Your task to perform on an android device: uninstall "DoorDash - Dasher" Image 0: 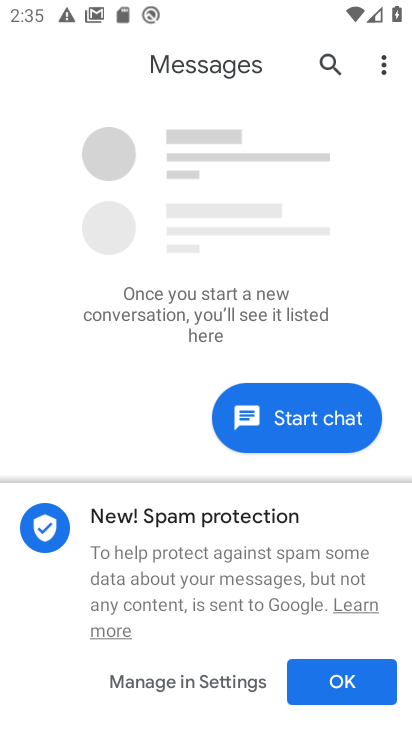
Step 0: press back button
Your task to perform on an android device: uninstall "DoorDash - Dasher" Image 1: 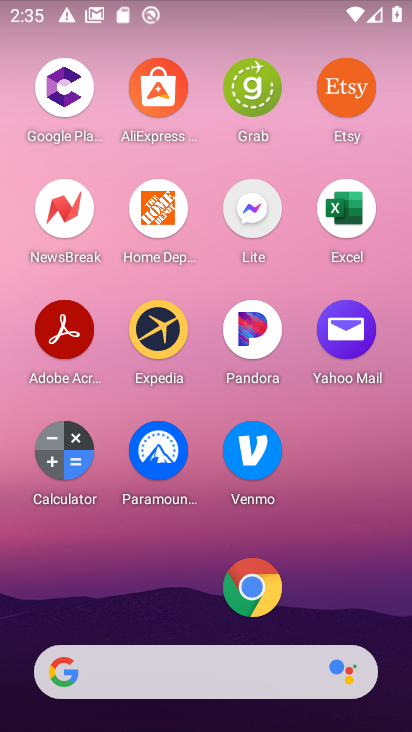
Step 1: drag from (159, 592) to (216, 230)
Your task to perform on an android device: uninstall "DoorDash - Dasher" Image 2: 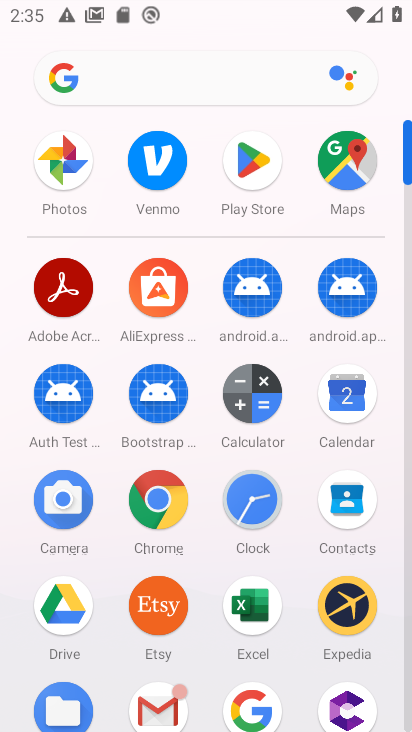
Step 2: click (253, 176)
Your task to perform on an android device: uninstall "DoorDash - Dasher" Image 3: 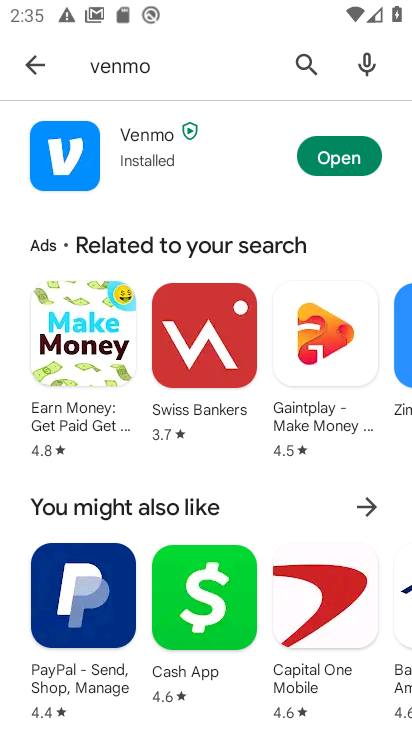
Step 3: click (298, 70)
Your task to perform on an android device: uninstall "DoorDash - Dasher" Image 4: 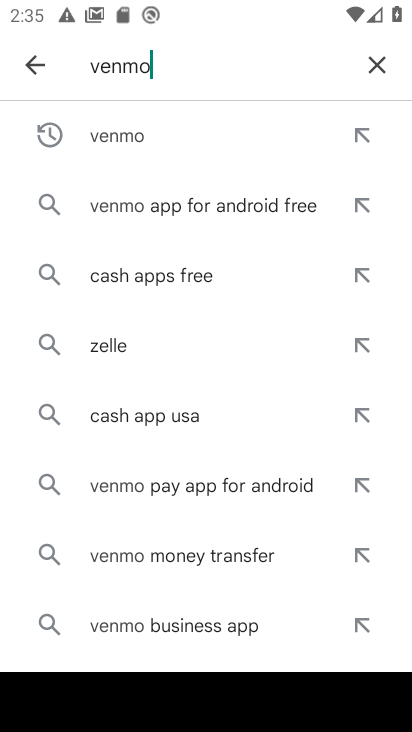
Step 4: click (363, 58)
Your task to perform on an android device: uninstall "DoorDash - Dasher" Image 5: 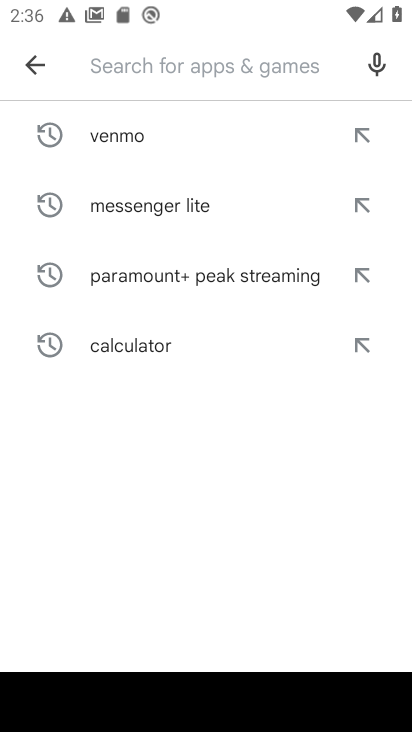
Step 5: type "DoorDash - Dasher"
Your task to perform on an android device: uninstall "DoorDash - Dasher" Image 6: 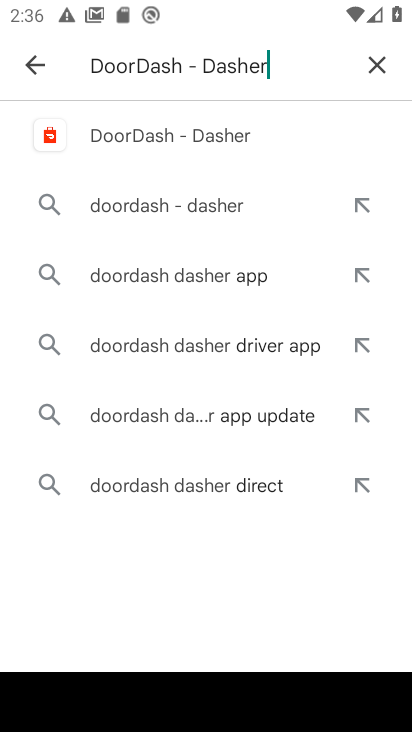
Step 6: click (149, 141)
Your task to perform on an android device: uninstall "DoorDash - Dasher" Image 7: 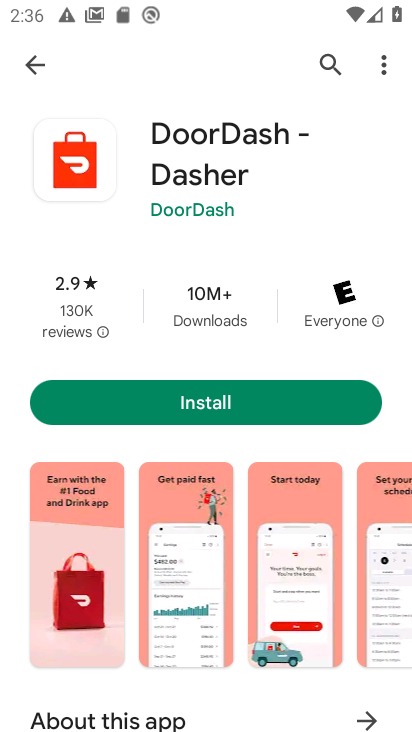
Step 7: task complete